Your task to perform on an android device: Open the Play Movies app and select the watchlist tab. Image 0: 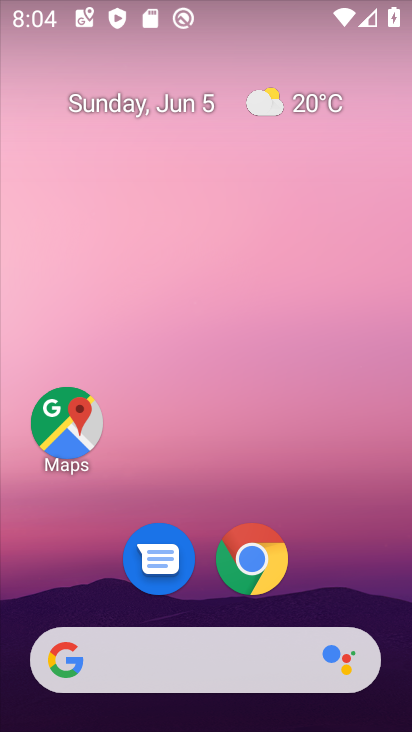
Step 0: drag from (313, 589) to (306, 227)
Your task to perform on an android device: Open the Play Movies app and select the watchlist tab. Image 1: 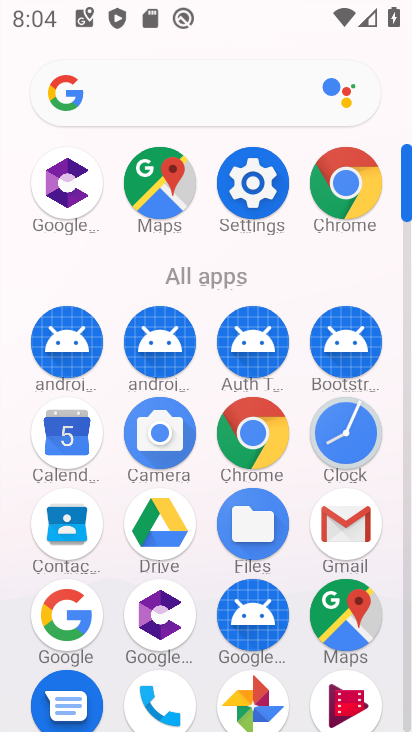
Step 1: drag from (306, 636) to (310, 350)
Your task to perform on an android device: Open the Play Movies app and select the watchlist tab. Image 2: 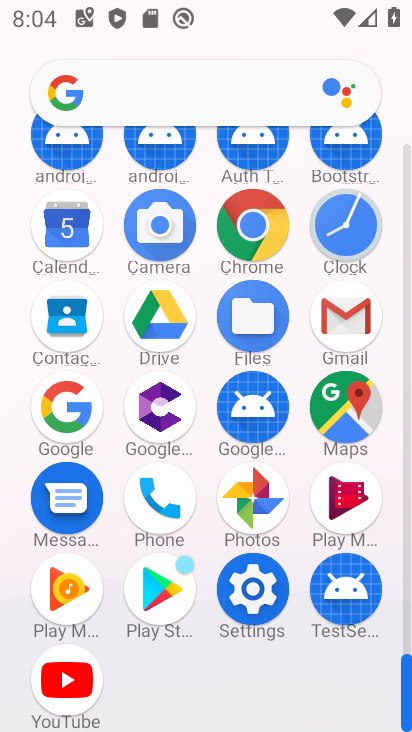
Step 2: click (358, 484)
Your task to perform on an android device: Open the Play Movies app and select the watchlist tab. Image 3: 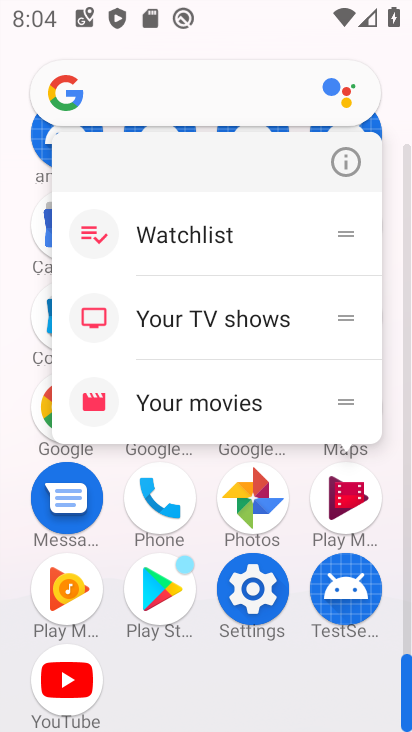
Step 3: click (327, 523)
Your task to perform on an android device: Open the Play Movies app and select the watchlist tab. Image 4: 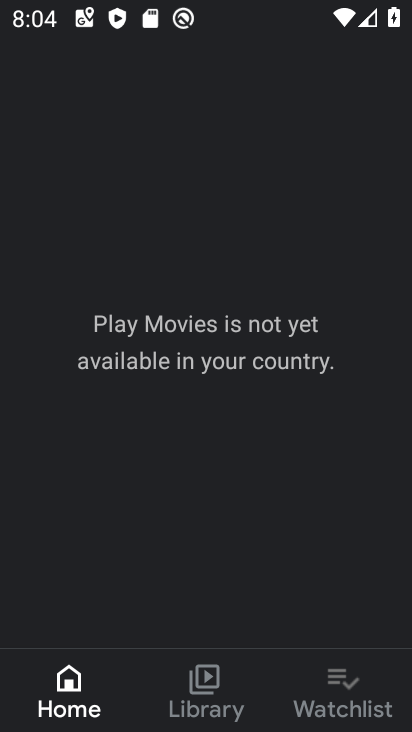
Step 4: click (346, 677)
Your task to perform on an android device: Open the Play Movies app and select the watchlist tab. Image 5: 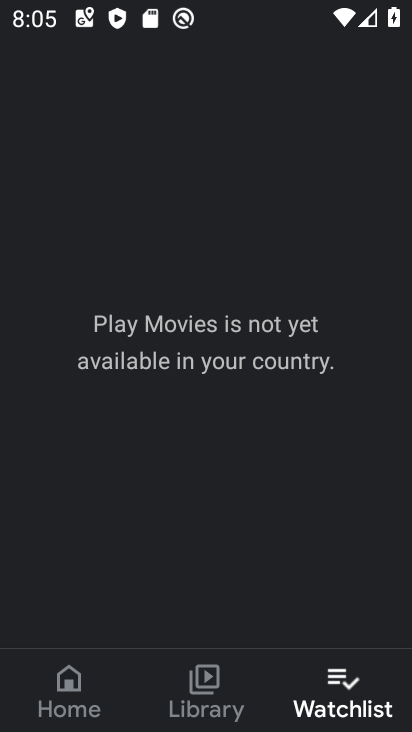
Step 5: task complete